Your task to perform on an android device: Check the weather Image 0: 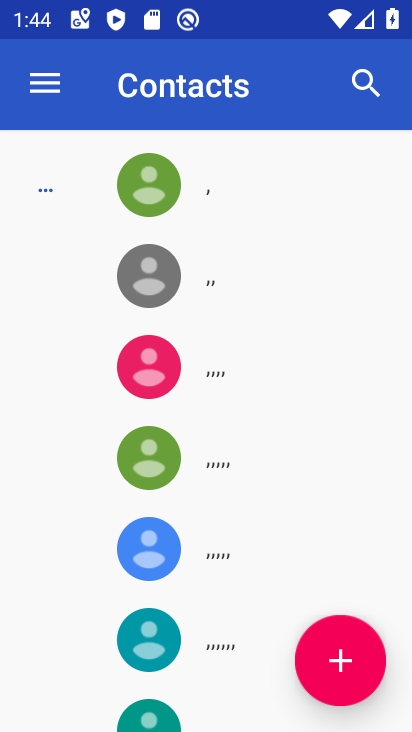
Step 0: press home button
Your task to perform on an android device: Check the weather Image 1: 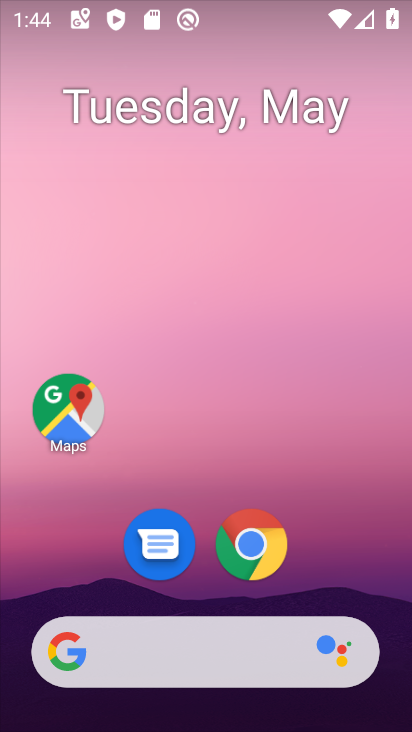
Step 1: drag from (320, 543) to (274, 162)
Your task to perform on an android device: Check the weather Image 2: 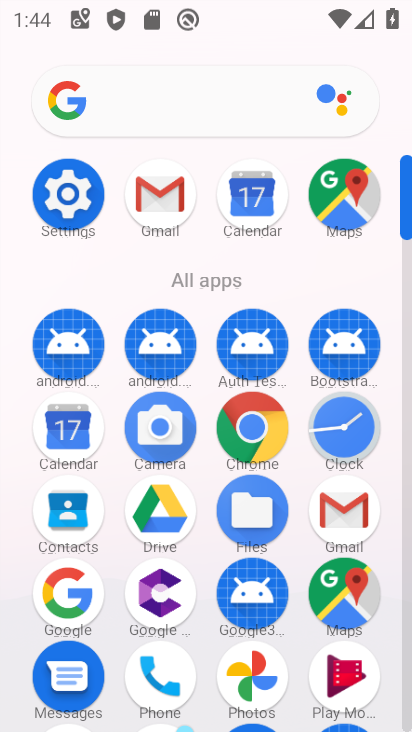
Step 2: click (234, 449)
Your task to perform on an android device: Check the weather Image 3: 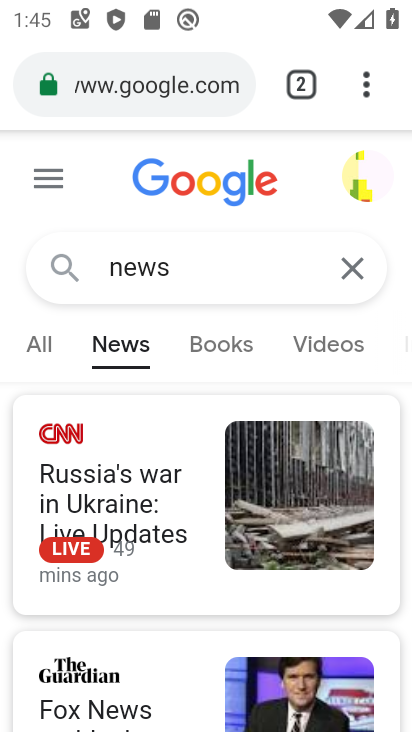
Step 3: click (215, 90)
Your task to perform on an android device: Check the weather Image 4: 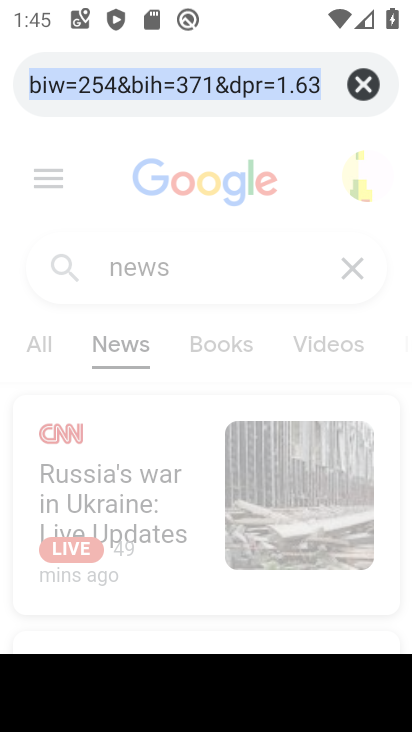
Step 4: type "weather"
Your task to perform on an android device: Check the weather Image 5: 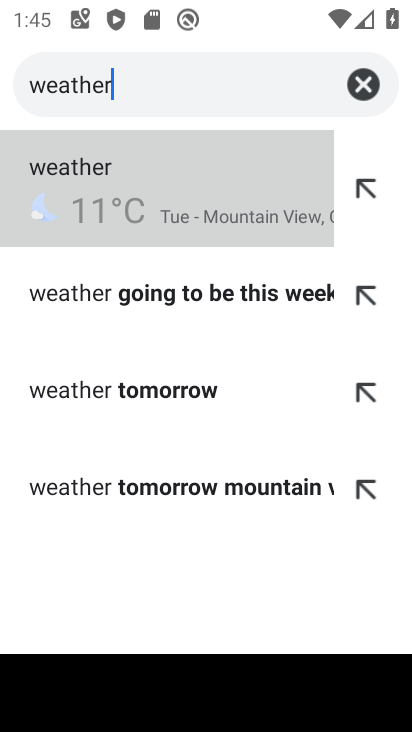
Step 5: click (244, 221)
Your task to perform on an android device: Check the weather Image 6: 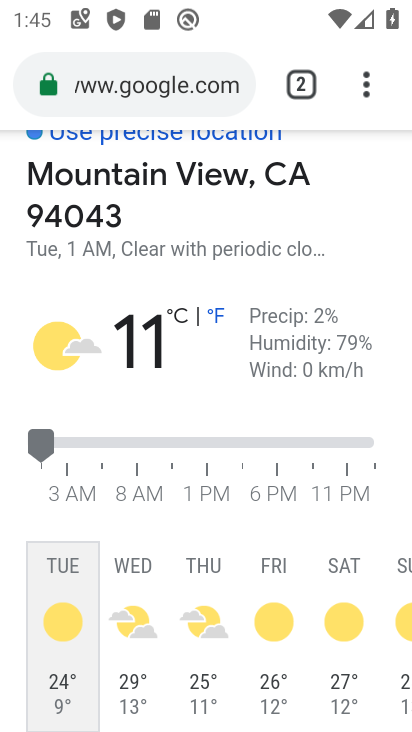
Step 6: task complete